Your task to perform on an android device: Go to calendar. Show me events next week Image 0: 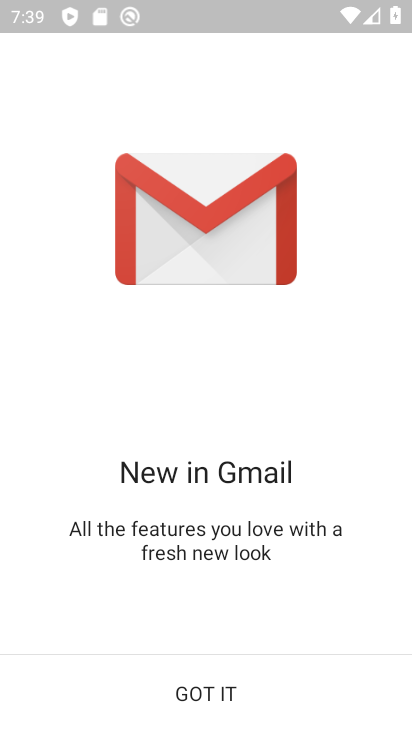
Step 0: press home button
Your task to perform on an android device: Go to calendar. Show me events next week Image 1: 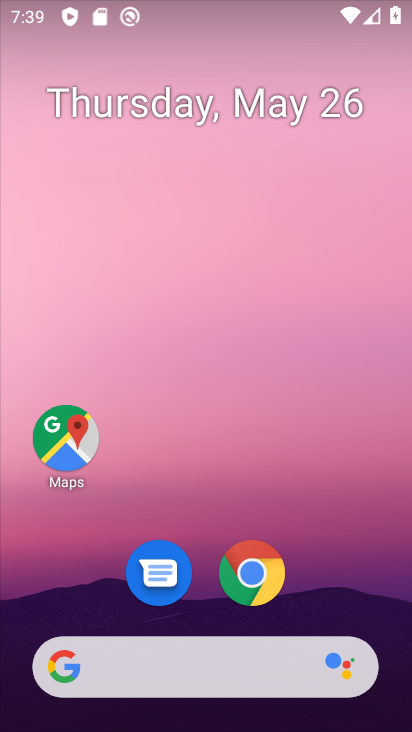
Step 1: drag from (228, 609) to (215, 41)
Your task to perform on an android device: Go to calendar. Show me events next week Image 2: 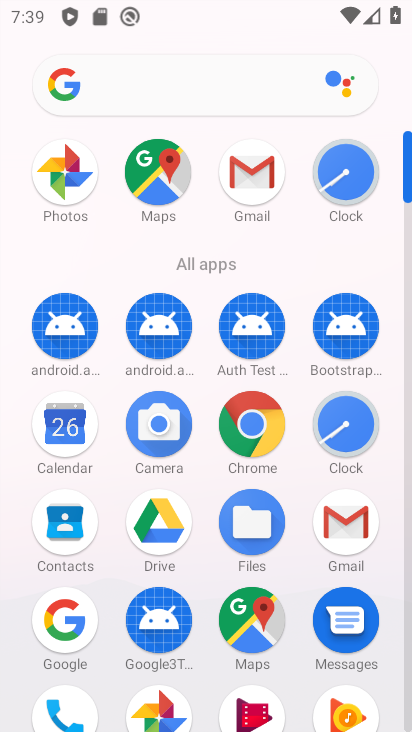
Step 2: click (59, 433)
Your task to perform on an android device: Go to calendar. Show me events next week Image 3: 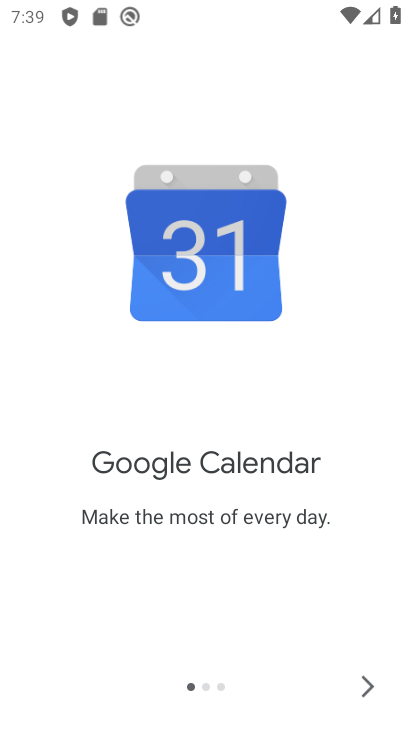
Step 3: click (366, 689)
Your task to perform on an android device: Go to calendar. Show me events next week Image 4: 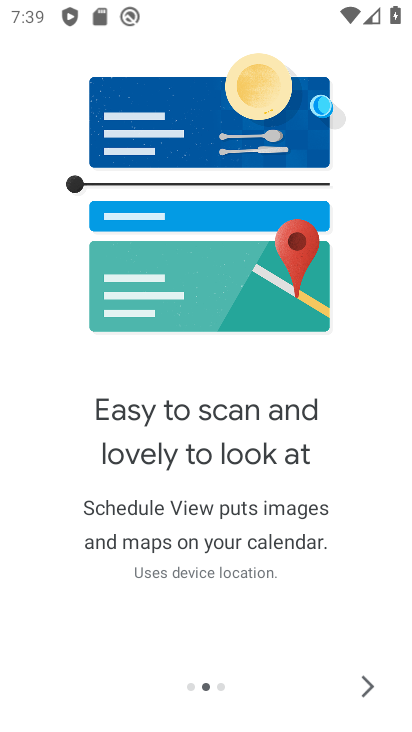
Step 4: click (366, 688)
Your task to perform on an android device: Go to calendar. Show me events next week Image 5: 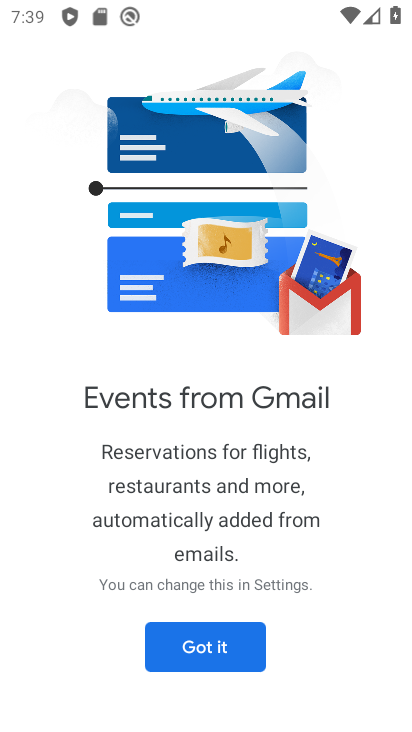
Step 5: click (203, 643)
Your task to perform on an android device: Go to calendar. Show me events next week Image 6: 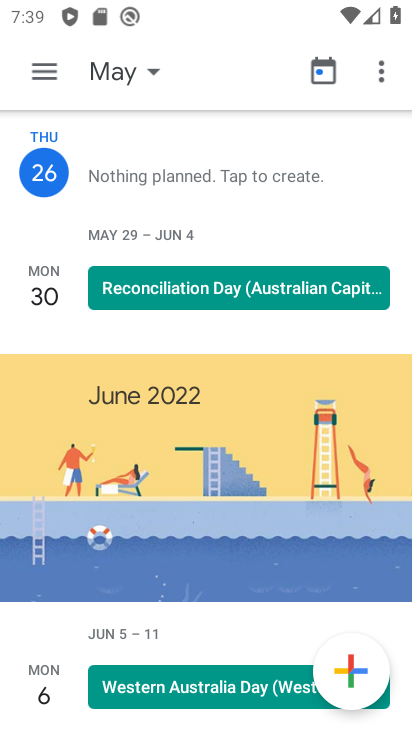
Step 6: click (35, 66)
Your task to perform on an android device: Go to calendar. Show me events next week Image 7: 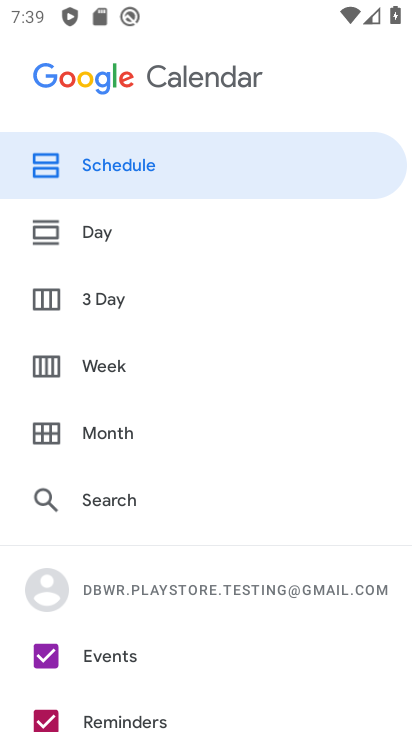
Step 7: click (102, 362)
Your task to perform on an android device: Go to calendar. Show me events next week Image 8: 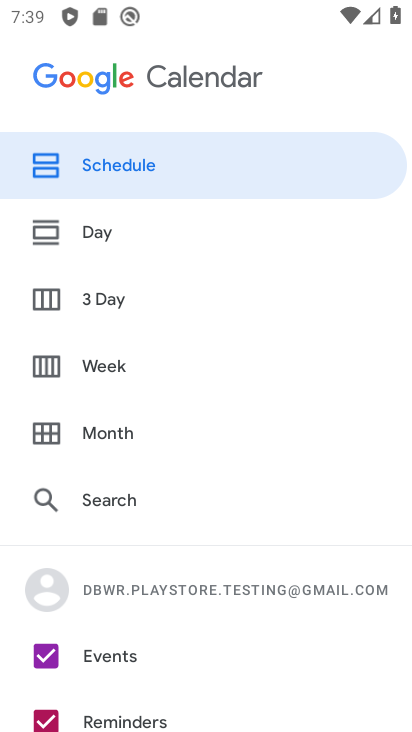
Step 8: click (64, 370)
Your task to perform on an android device: Go to calendar. Show me events next week Image 9: 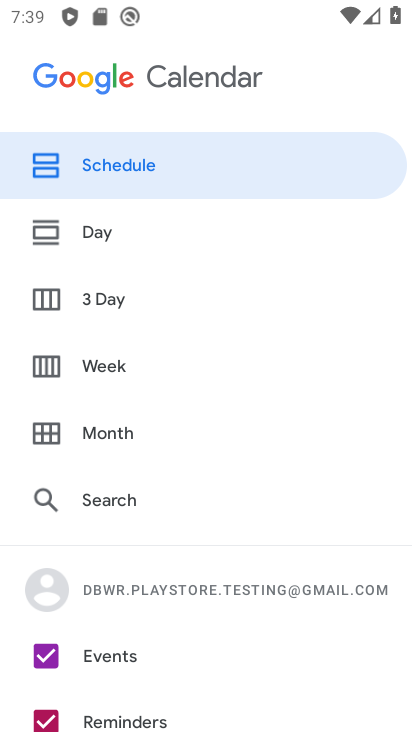
Step 9: click (64, 370)
Your task to perform on an android device: Go to calendar. Show me events next week Image 10: 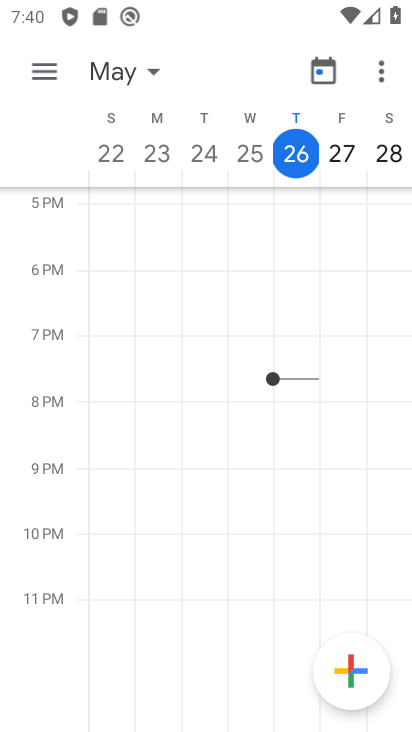
Step 10: task complete